Your task to perform on an android device: Open maps Image 0: 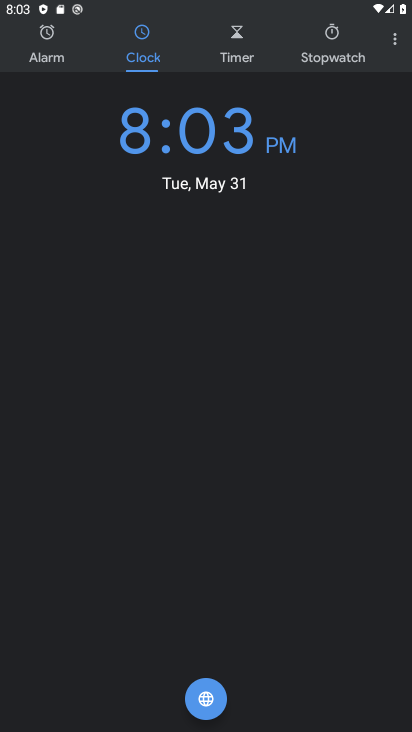
Step 0: press home button
Your task to perform on an android device: Open maps Image 1: 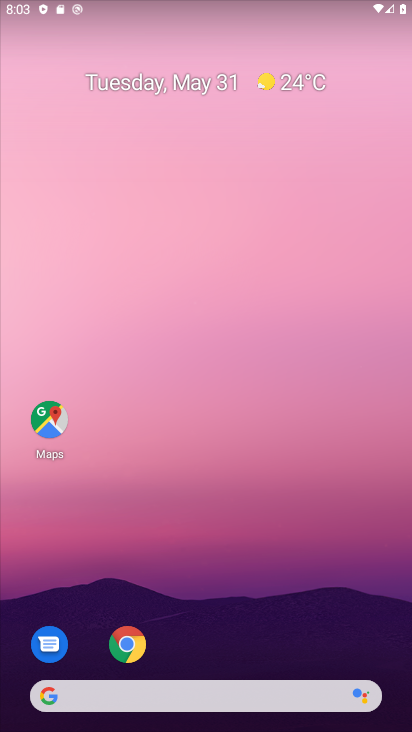
Step 1: drag from (320, 621) to (339, 132)
Your task to perform on an android device: Open maps Image 2: 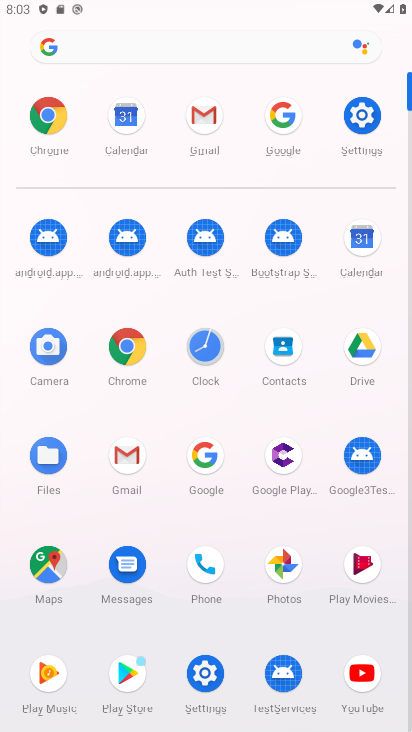
Step 2: click (45, 558)
Your task to perform on an android device: Open maps Image 3: 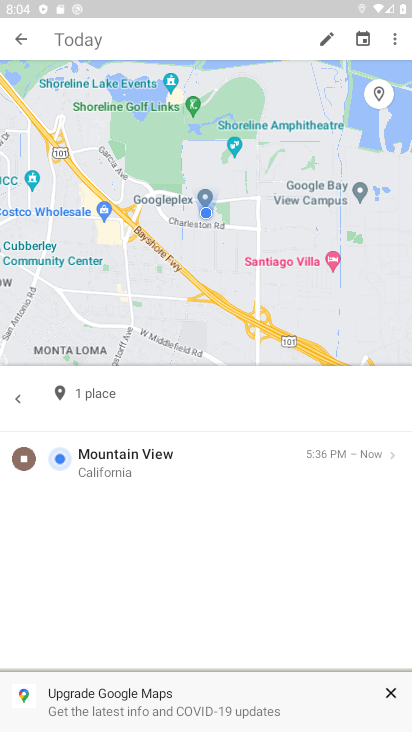
Step 3: task complete